Your task to perform on an android device: change the upload size in google photos Image 0: 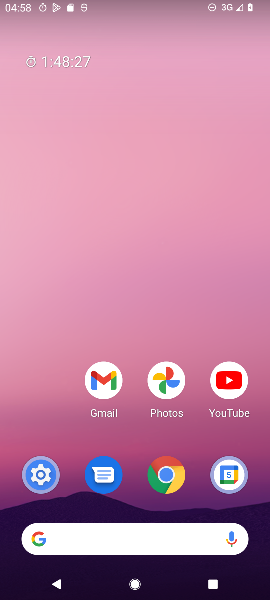
Step 0: drag from (52, 427) to (48, 218)
Your task to perform on an android device: change the upload size in google photos Image 1: 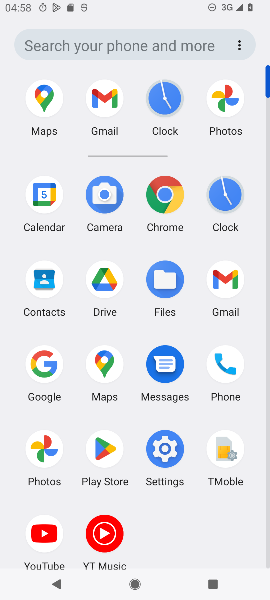
Step 1: click (37, 444)
Your task to perform on an android device: change the upload size in google photos Image 2: 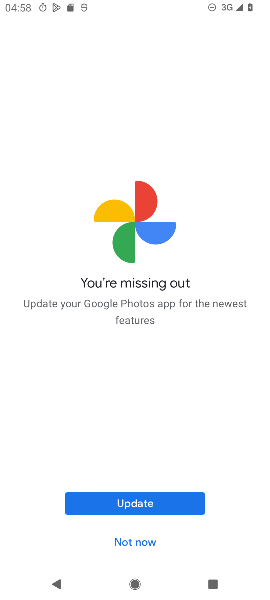
Step 2: click (135, 541)
Your task to perform on an android device: change the upload size in google photos Image 3: 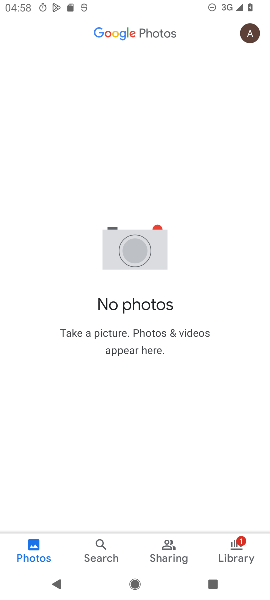
Step 3: click (248, 32)
Your task to perform on an android device: change the upload size in google photos Image 4: 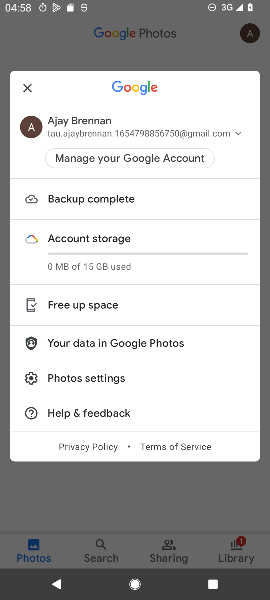
Step 4: click (119, 381)
Your task to perform on an android device: change the upload size in google photos Image 5: 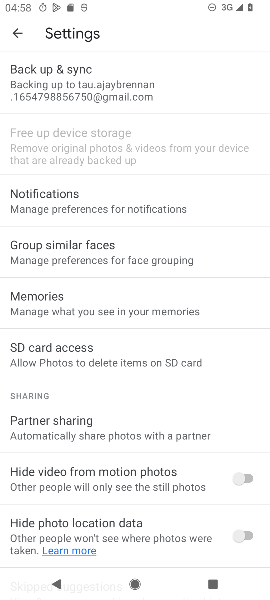
Step 5: click (93, 70)
Your task to perform on an android device: change the upload size in google photos Image 6: 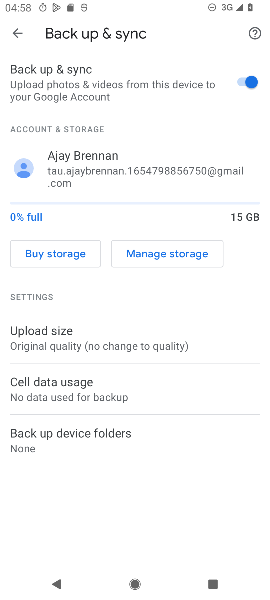
Step 6: click (82, 339)
Your task to perform on an android device: change the upload size in google photos Image 7: 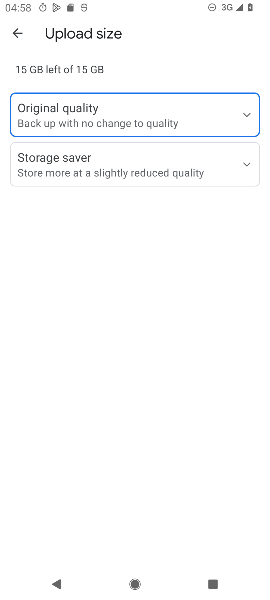
Step 7: click (125, 167)
Your task to perform on an android device: change the upload size in google photos Image 8: 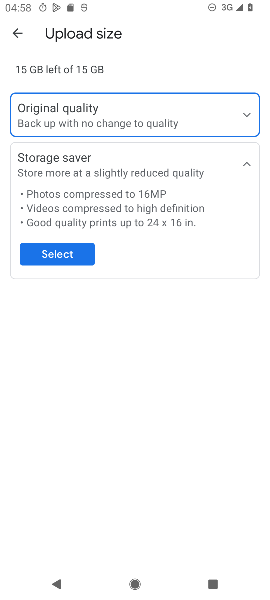
Step 8: click (66, 257)
Your task to perform on an android device: change the upload size in google photos Image 9: 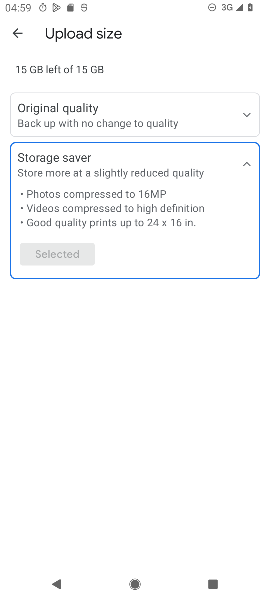
Step 9: task complete